Your task to perform on an android device: open app "Nova Launcher" Image 0: 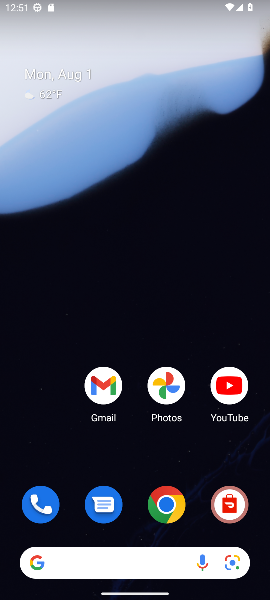
Step 0: drag from (185, 547) to (197, 56)
Your task to perform on an android device: open app "Nova Launcher" Image 1: 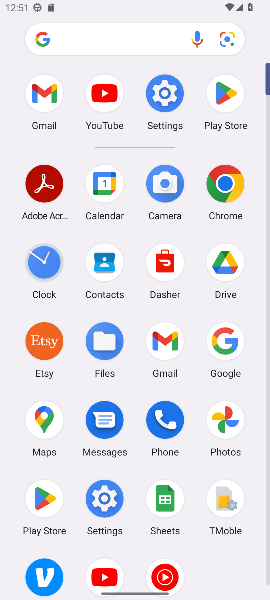
Step 1: click (231, 86)
Your task to perform on an android device: open app "Nova Launcher" Image 2: 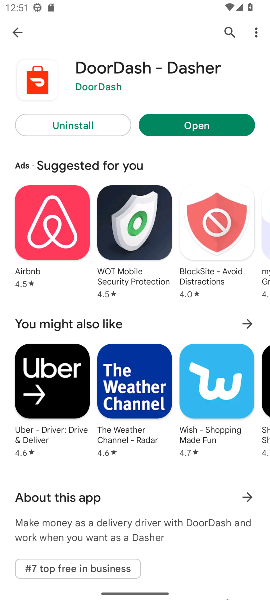
Step 2: click (233, 29)
Your task to perform on an android device: open app "Nova Launcher" Image 3: 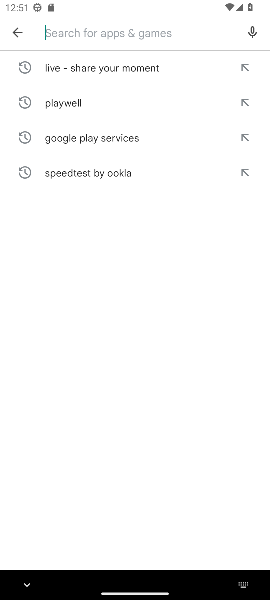
Step 3: type "nova launcher"
Your task to perform on an android device: open app "Nova Launcher" Image 4: 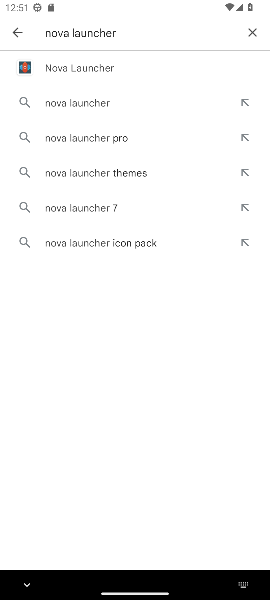
Step 4: click (97, 74)
Your task to perform on an android device: open app "Nova Launcher" Image 5: 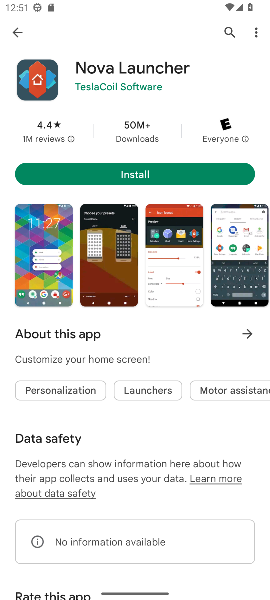
Step 5: task complete